Your task to perform on an android device: visit the assistant section in the google photos Image 0: 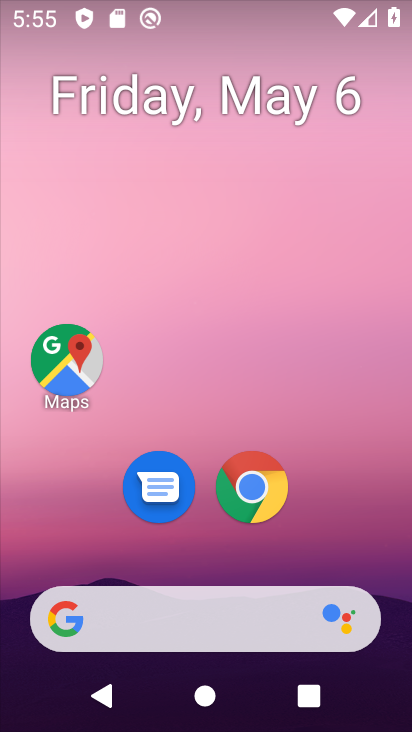
Step 0: drag from (239, 7) to (220, 400)
Your task to perform on an android device: visit the assistant section in the google photos Image 1: 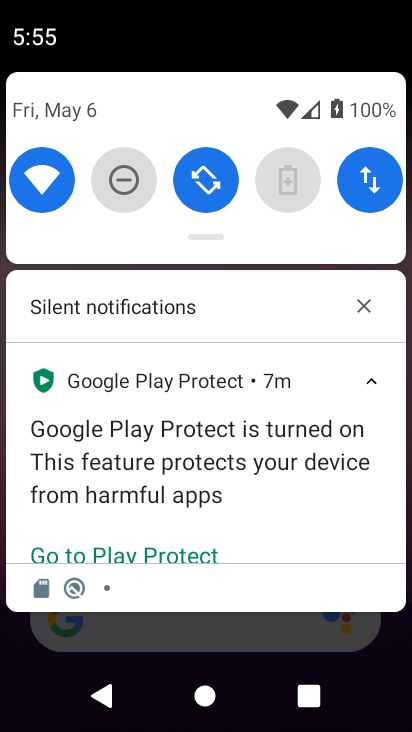
Step 1: click (52, 176)
Your task to perform on an android device: visit the assistant section in the google photos Image 2: 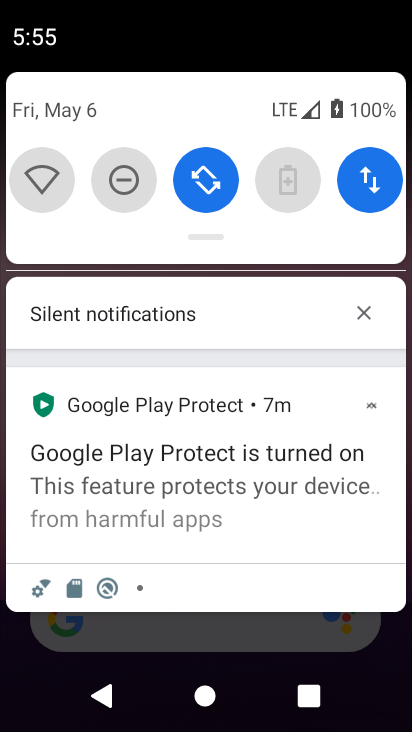
Step 2: click (32, 174)
Your task to perform on an android device: visit the assistant section in the google photos Image 3: 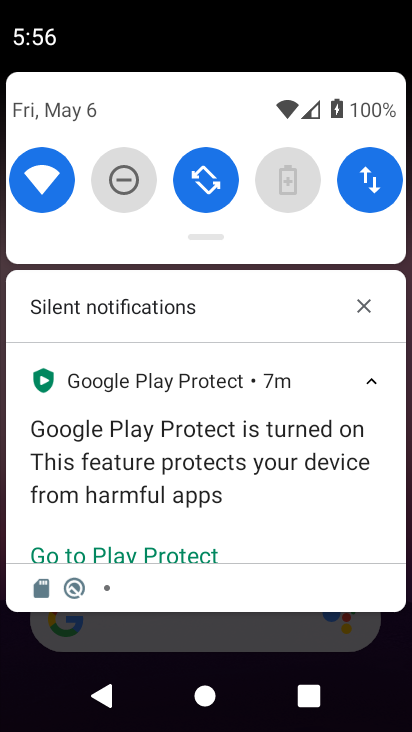
Step 3: click (365, 45)
Your task to perform on an android device: visit the assistant section in the google photos Image 4: 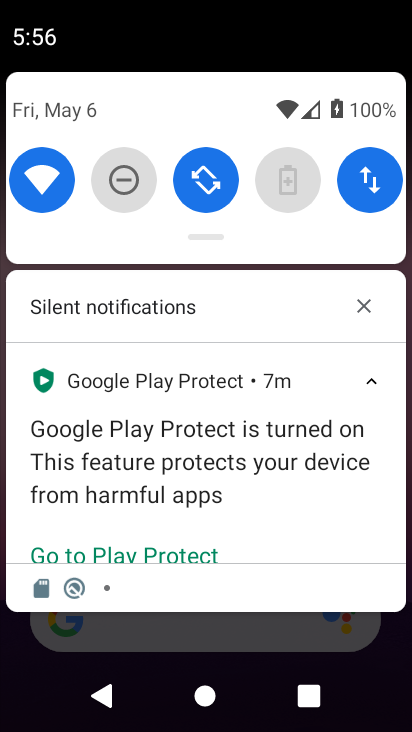
Step 4: drag from (344, 627) to (365, 32)
Your task to perform on an android device: visit the assistant section in the google photos Image 5: 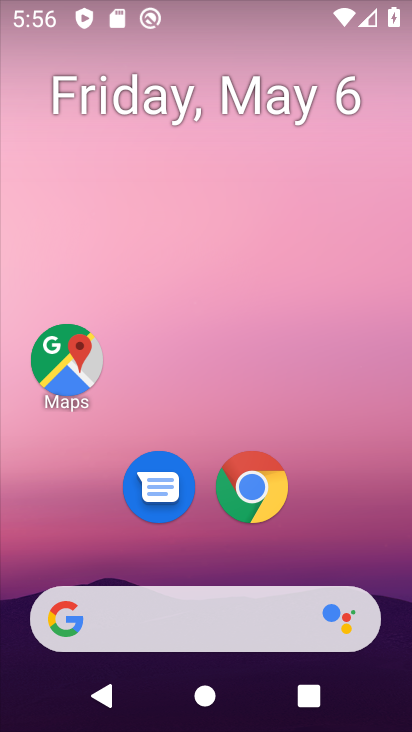
Step 5: drag from (295, 519) to (288, 79)
Your task to perform on an android device: visit the assistant section in the google photos Image 6: 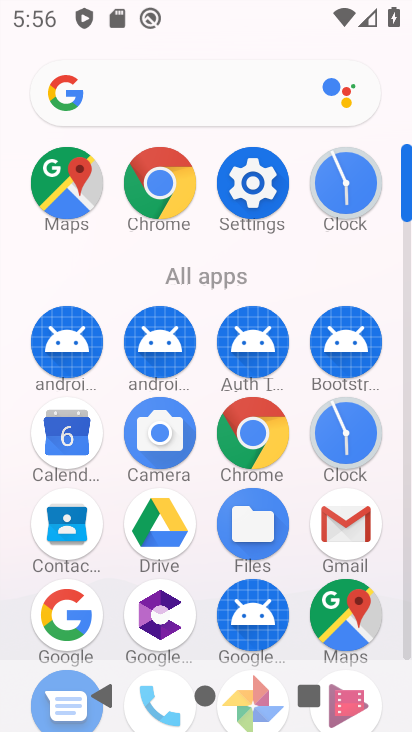
Step 6: drag from (296, 166) to (298, 23)
Your task to perform on an android device: visit the assistant section in the google photos Image 7: 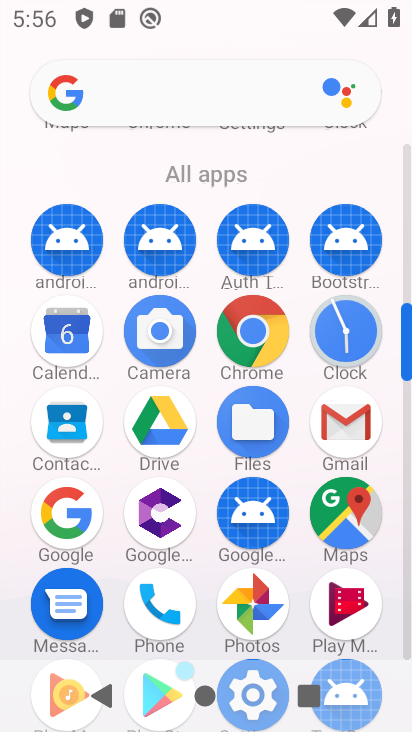
Step 7: click (253, 590)
Your task to perform on an android device: visit the assistant section in the google photos Image 8: 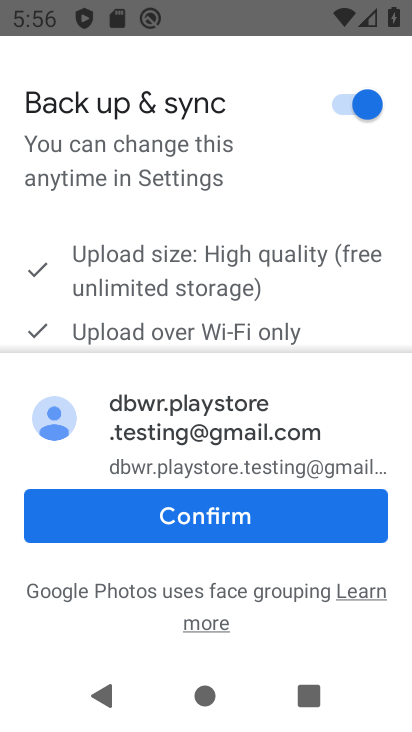
Step 8: click (207, 524)
Your task to perform on an android device: visit the assistant section in the google photos Image 9: 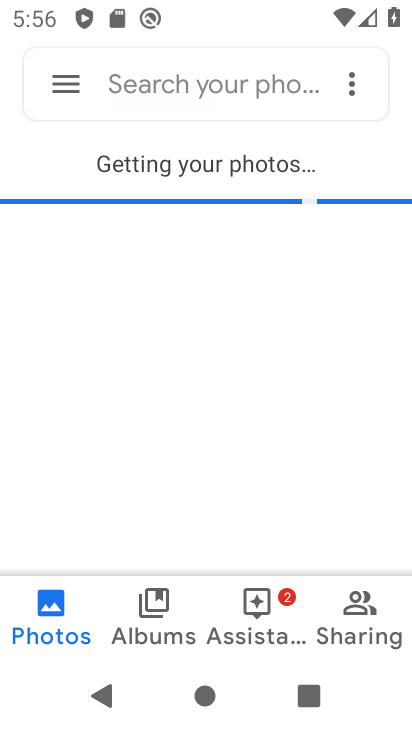
Step 9: click (272, 627)
Your task to perform on an android device: visit the assistant section in the google photos Image 10: 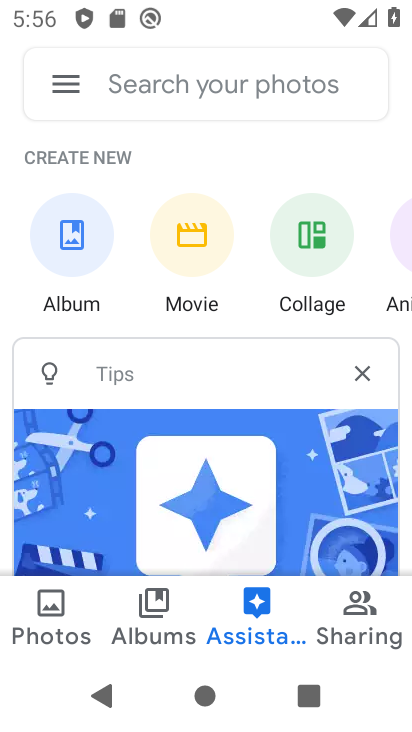
Step 10: task complete